Your task to perform on an android device: change the clock display to show seconds Image 0: 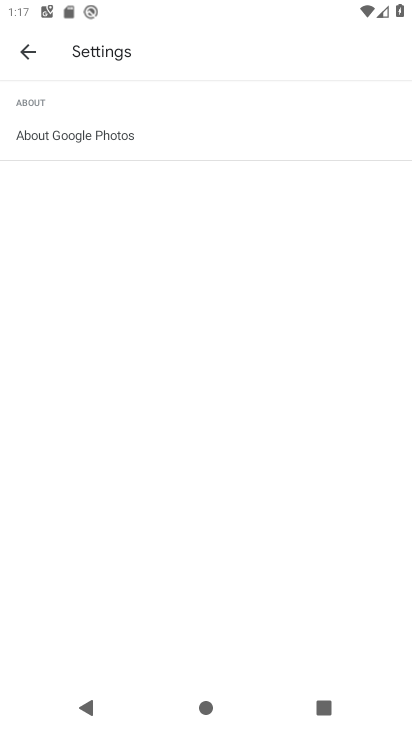
Step 0: press home button
Your task to perform on an android device: change the clock display to show seconds Image 1: 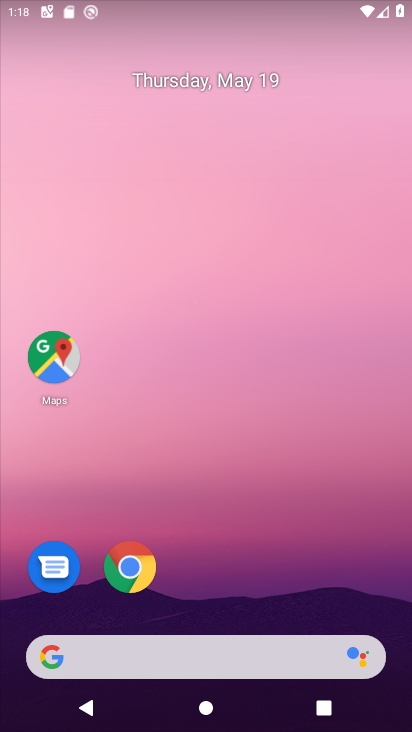
Step 1: drag from (254, 572) to (236, 225)
Your task to perform on an android device: change the clock display to show seconds Image 2: 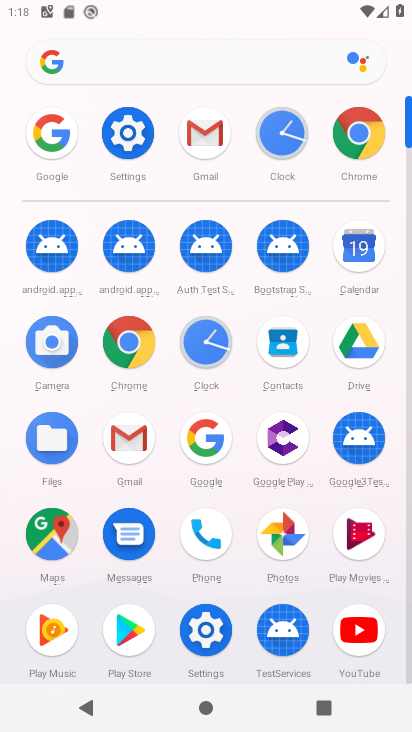
Step 2: click (270, 154)
Your task to perform on an android device: change the clock display to show seconds Image 3: 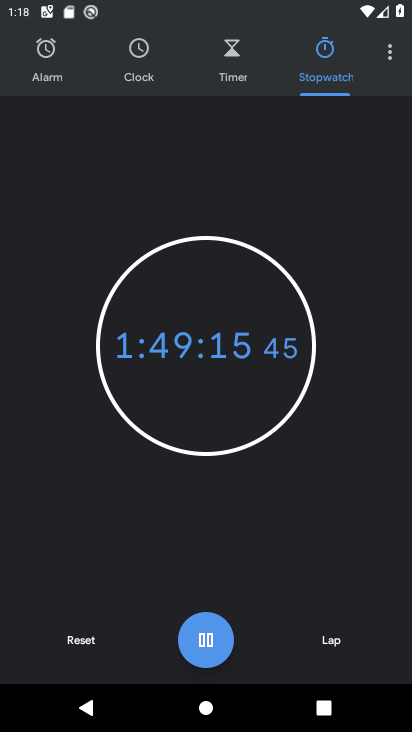
Step 3: click (391, 37)
Your task to perform on an android device: change the clock display to show seconds Image 4: 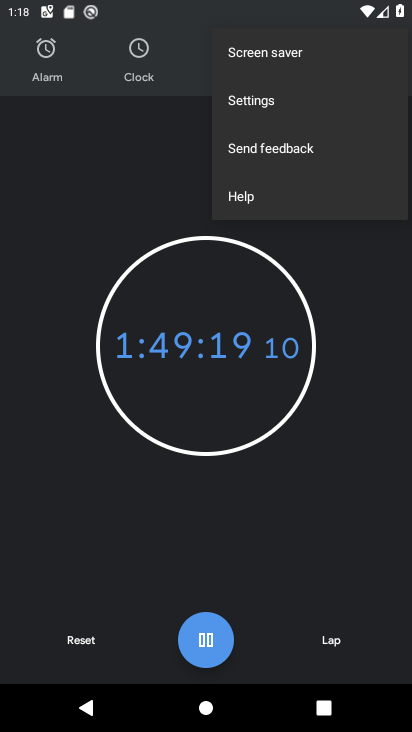
Step 4: click (324, 102)
Your task to perform on an android device: change the clock display to show seconds Image 5: 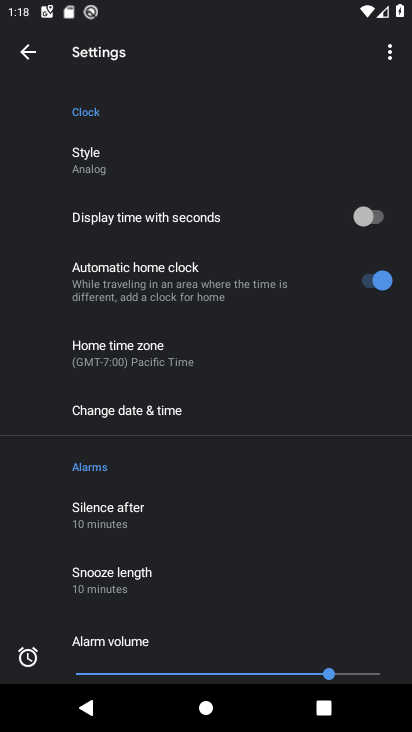
Step 5: drag from (189, 533) to (223, 114)
Your task to perform on an android device: change the clock display to show seconds Image 6: 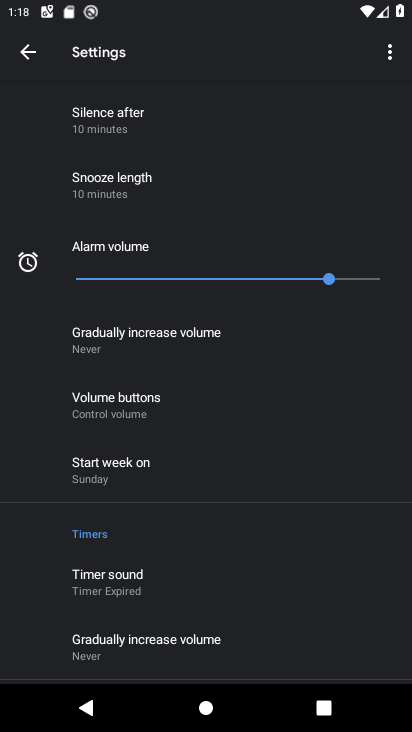
Step 6: drag from (176, 526) to (231, 148)
Your task to perform on an android device: change the clock display to show seconds Image 7: 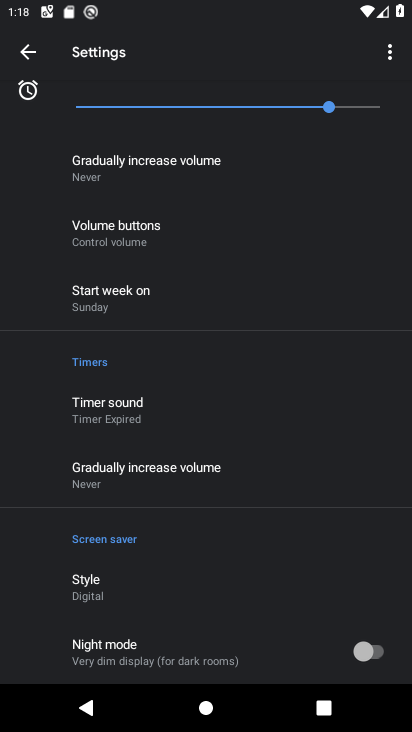
Step 7: drag from (176, 571) to (240, 317)
Your task to perform on an android device: change the clock display to show seconds Image 8: 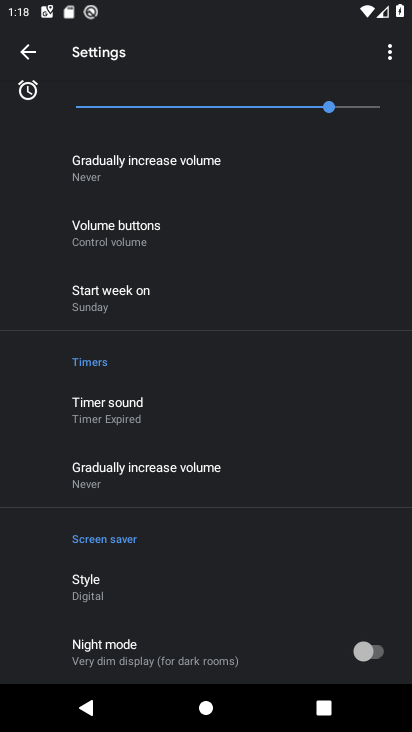
Step 8: drag from (244, 189) to (213, 475)
Your task to perform on an android device: change the clock display to show seconds Image 9: 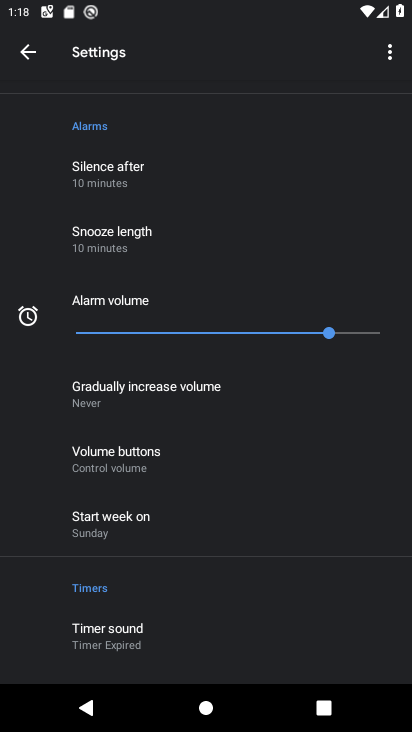
Step 9: drag from (223, 170) to (178, 464)
Your task to perform on an android device: change the clock display to show seconds Image 10: 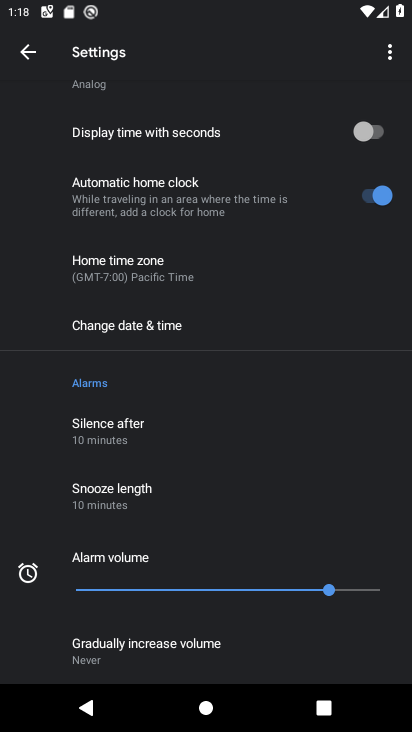
Step 10: drag from (159, 146) to (133, 495)
Your task to perform on an android device: change the clock display to show seconds Image 11: 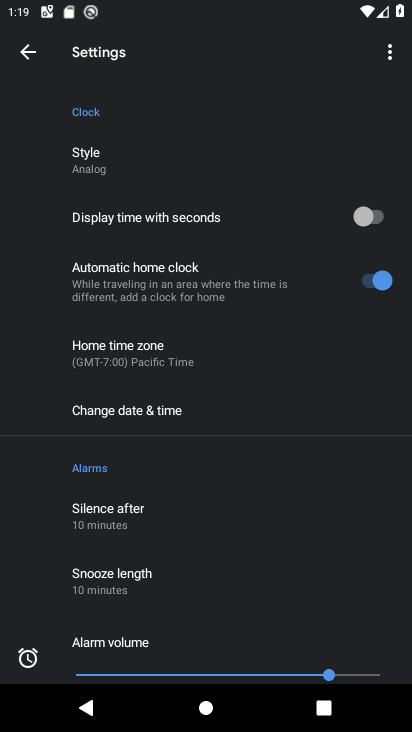
Step 11: click (84, 105)
Your task to perform on an android device: change the clock display to show seconds Image 12: 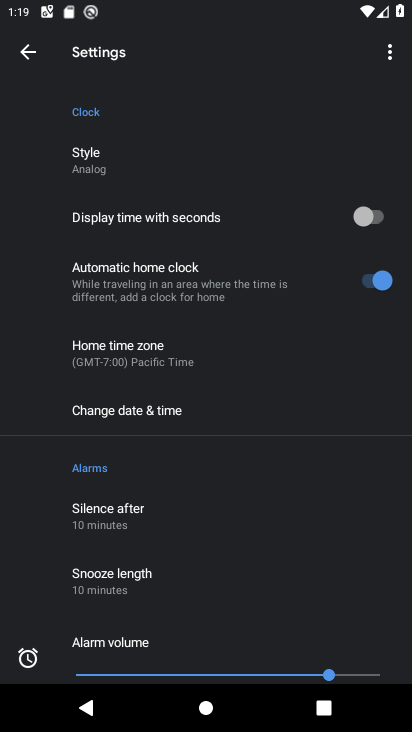
Step 12: task complete